Your task to perform on an android device: Open Youtube and go to "Your channel" Image 0: 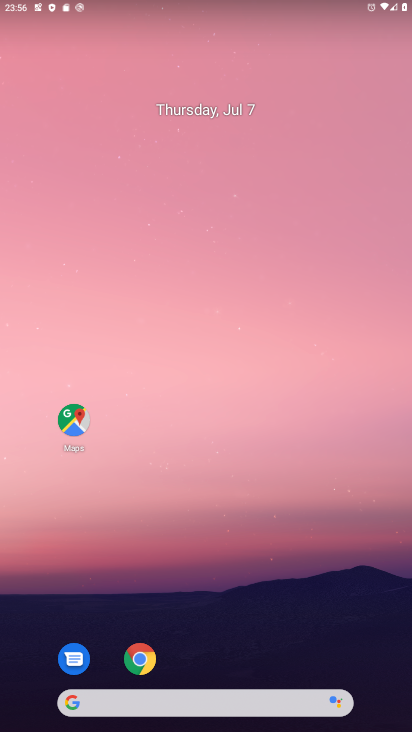
Step 0: drag from (204, 656) to (221, 77)
Your task to perform on an android device: Open Youtube and go to "Your channel" Image 1: 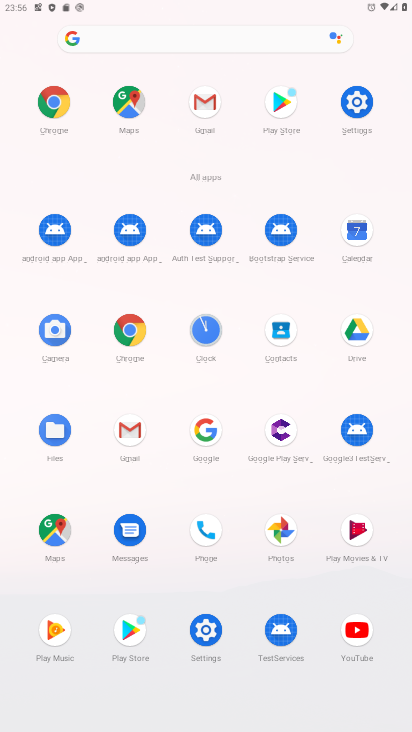
Step 1: click (350, 633)
Your task to perform on an android device: Open Youtube and go to "Your channel" Image 2: 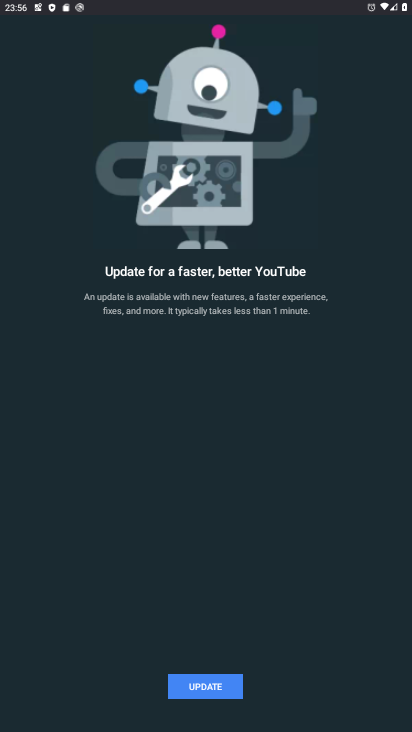
Step 2: click (223, 689)
Your task to perform on an android device: Open Youtube and go to "Your channel" Image 3: 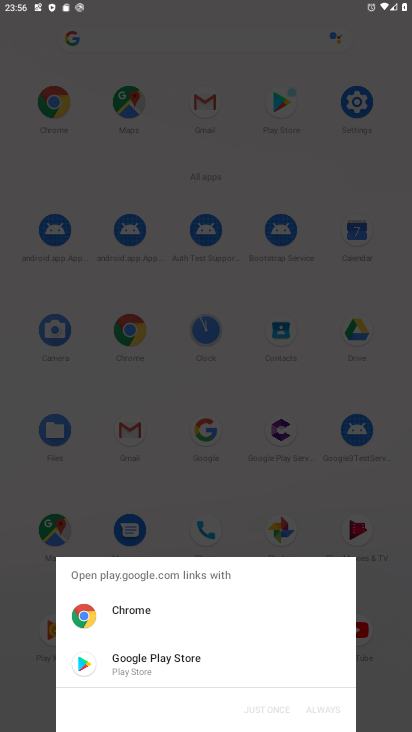
Step 3: click (201, 666)
Your task to perform on an android device: Open Youtube and go to "Your channel" Image 4: 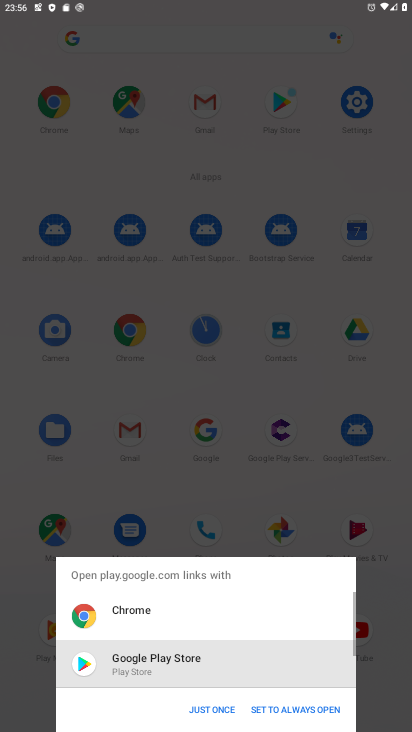
Step 4: click (258, 711)
Your task to perform on an android device: Open Youtube and go to "Your channel" Image 5: 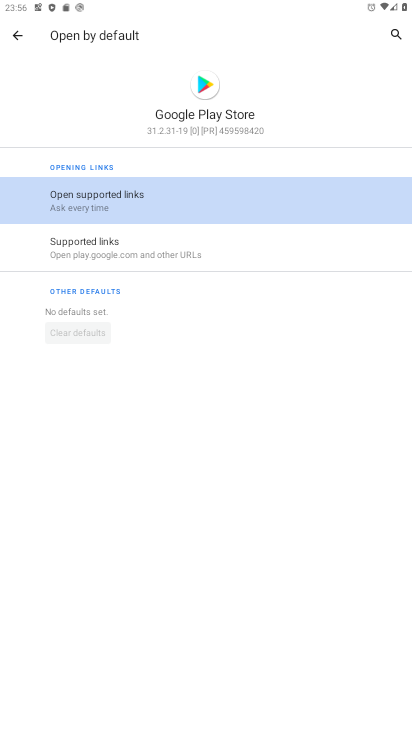
Step 5: press back button
Your task to perform on an android device: Open Youtube and go to "Your channel" Image 6: 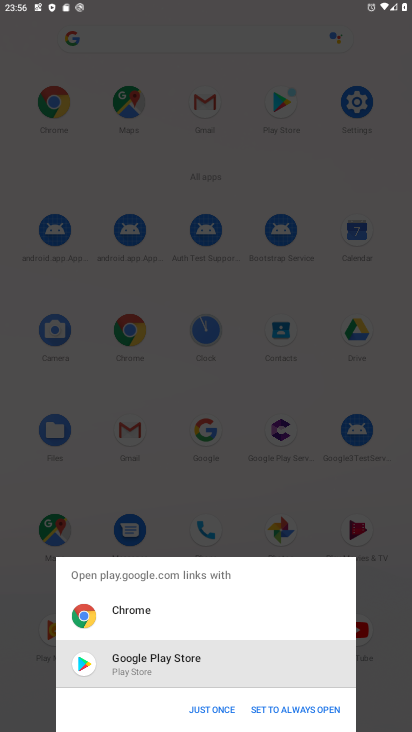
Step 6: click (198, 708)
Your task to perform on an android device: Open Youtube and go to "Your channel" Image 7: 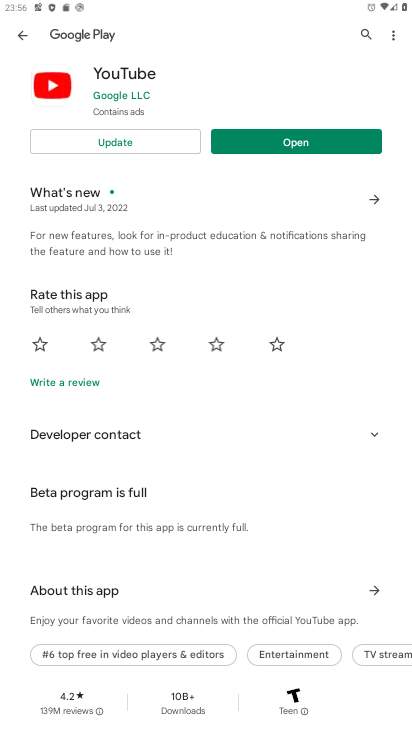
Step 7: click (153, 154)
Your task to perform on an android device: Open Youtube and go to "Your channel" Image 8: 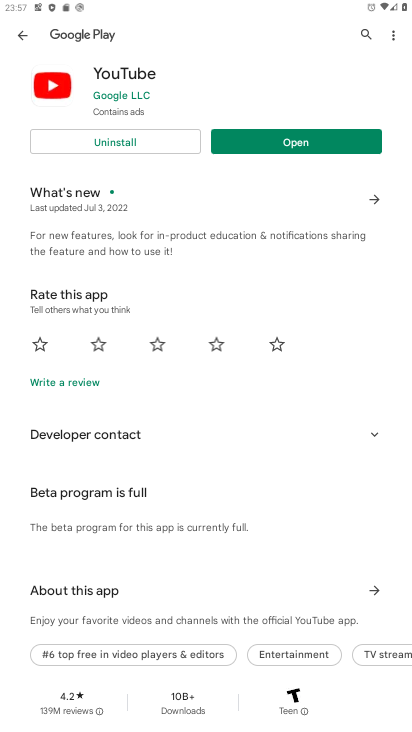
Step 8: click (287, 137)
Your task to perform on an android device: Open Youtube and go to "Your channel" Image 9: 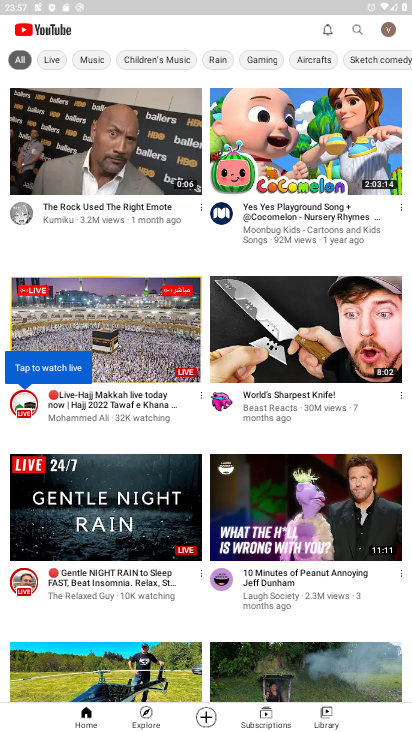
Step 9: click (355, 35)
Your task to perform on an android device: Open Youtube and go to "Your channel" Image 10: 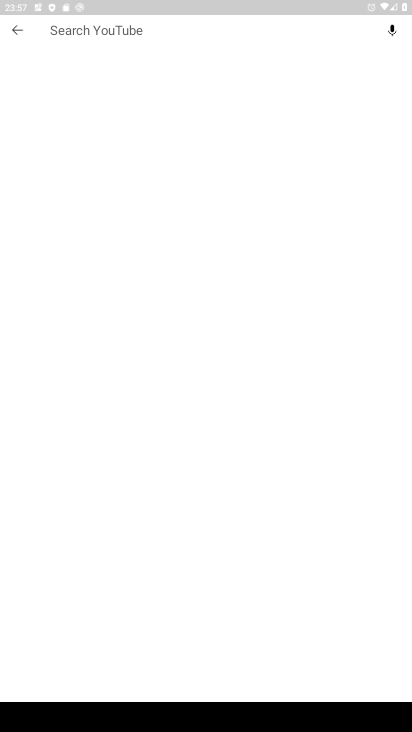
Step 10: type "your channel"
Your task to perform on an android device: Open Youtube and go to "Your channel" Image 11: 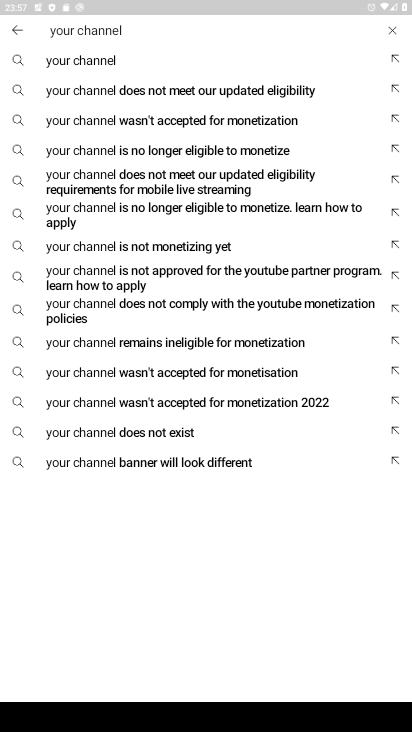
Step 11: click (170, 67)
Your task to perform on an android device: Open Youtube and go to "Your channel" Image 12: 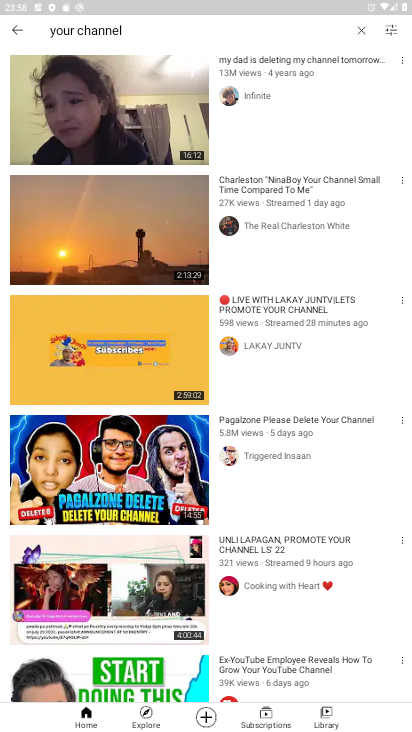
Step 12: task complete